Your task to perform on an android device: turn off smart reply in the gmail app Image 0: 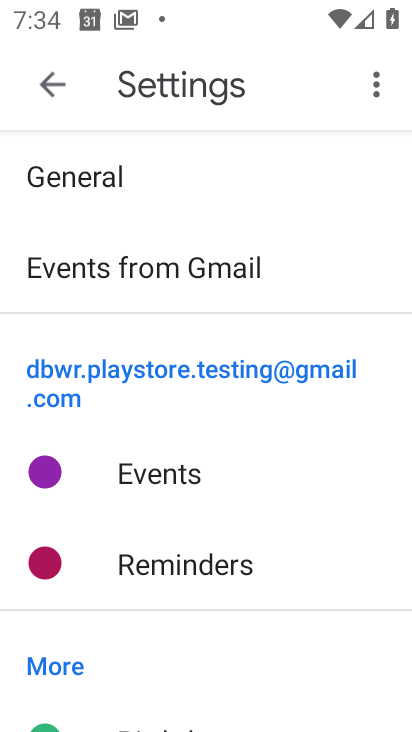
Step 0: press back button
Your task to perform on an android device: turn off smart reply in the gmail app Image 1: 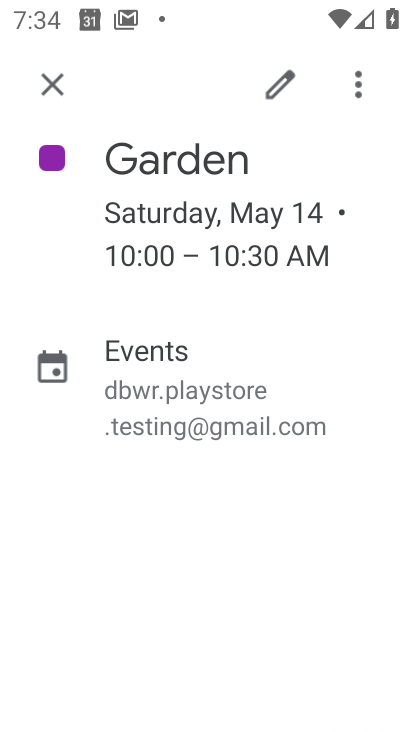
Step 1: press back button
Your task to perform on an android device: turn off smart reply in the gmail app Image 2: 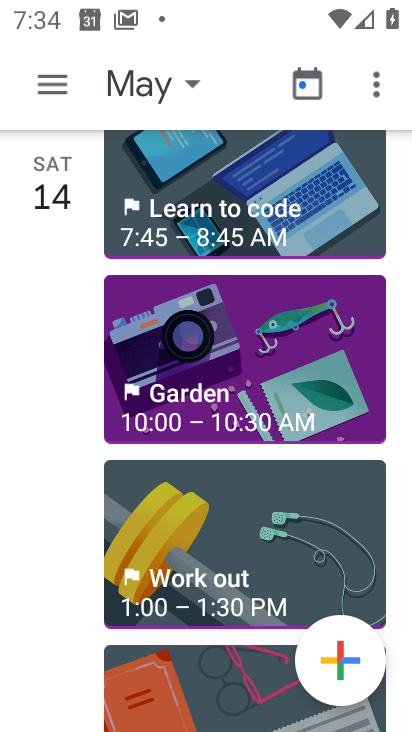
Step 2: press back button
Your task to perform on an android device: turn off smart reply in the gmail app Image 3: 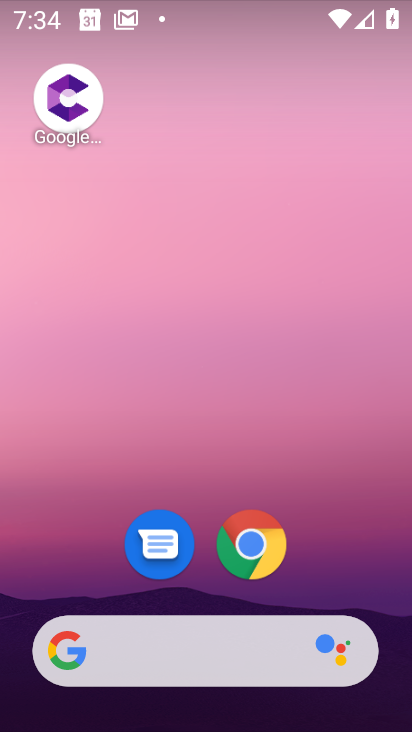
Step 3: drag from (350, 537) to (255, 58)
Your task to perform on an android device: turn off smart reply in the gmail app Image 4: 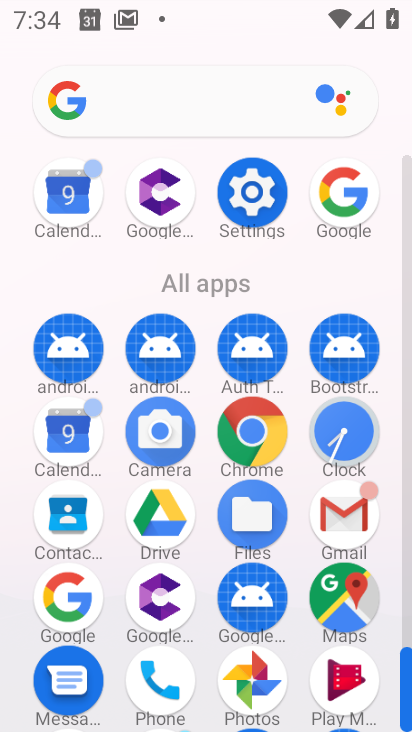
Step 4: click (343, 516)
Your task to perform on an android device: turn off smart reply in the gmail app Image 5: 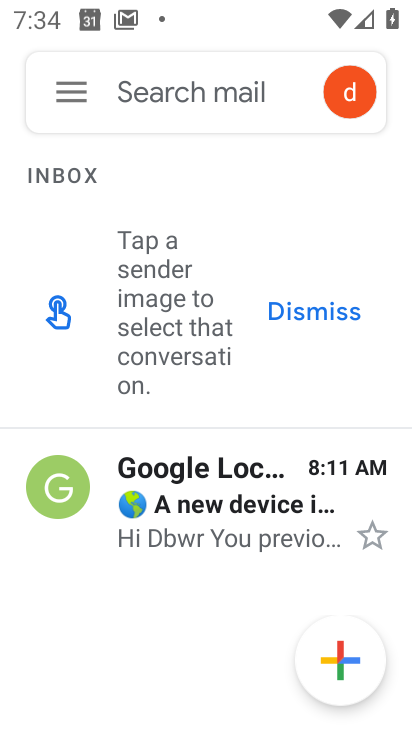
Step 5: click (65, 92)
Your task to perform on an android device: turn off smart reply in the gmail app Image 6: 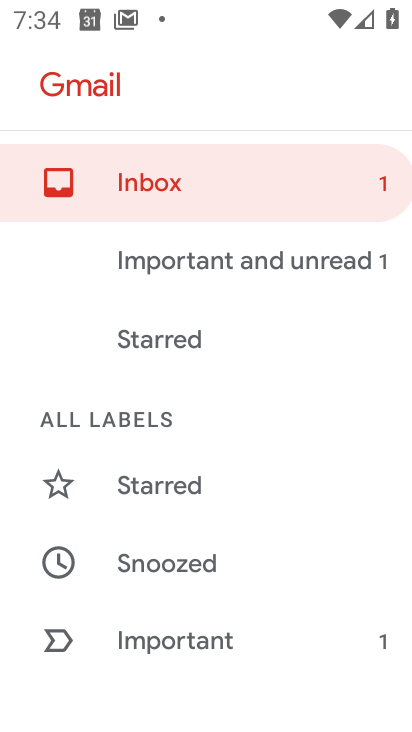
Step 6: drag from (210, 427) to (216, 336)
Your task to perform on an android device: turn off smart reply in the gmail app Image 7: 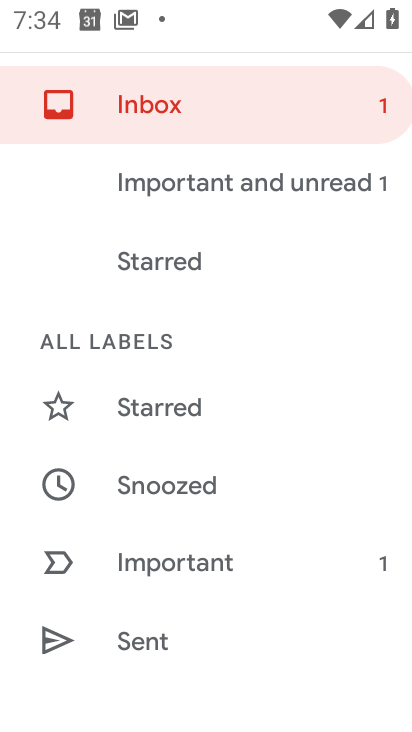
Step 7: drag from (296, 530) to (294, 397)
Your task to perform on an android device: turn off smart reply in the gmail app Image 8: 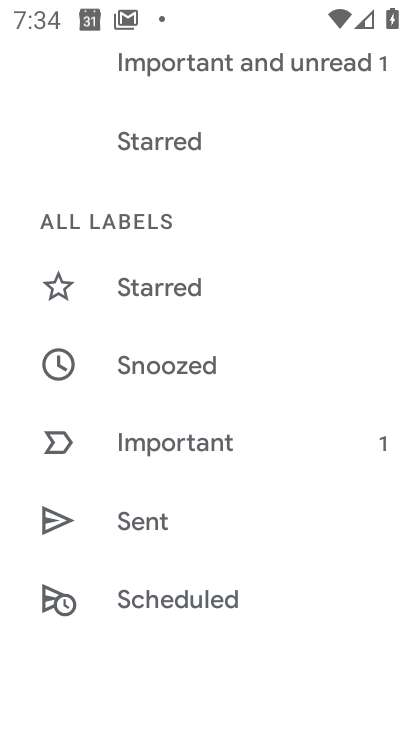
Step 8: drag from (237, 527) to (264, 422)
Your task to perform on an android device: turn off smart reply in the gmail app Image 9: 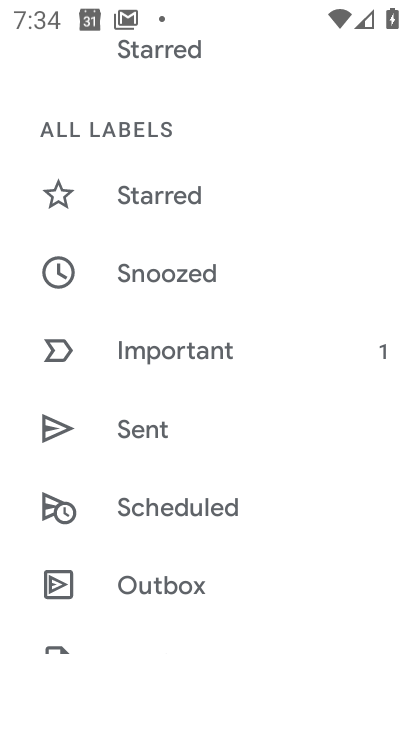
Step 9: drag from (235, 524) to (265, 416)
Your task to perform on an android device: turn off smart reply in the gmail app Image 10: 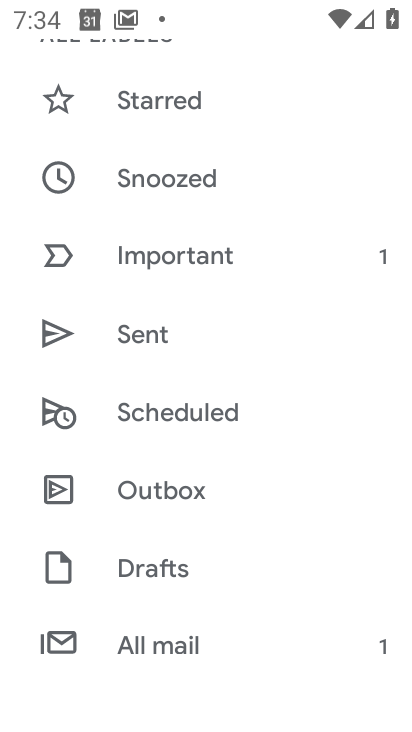
Step 10: drag from (208, 533) to (249, 407)
Your task to perform on an android device: turn off smart reply in the gmail app Image 11: 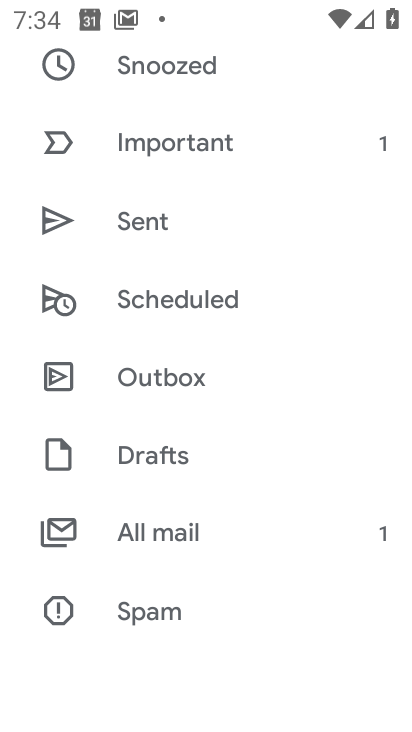
Step 11: drag from (196, 570) to (241, 438)
Your task to perform on an android device: turn off smart reply in the gmail app Image 12: 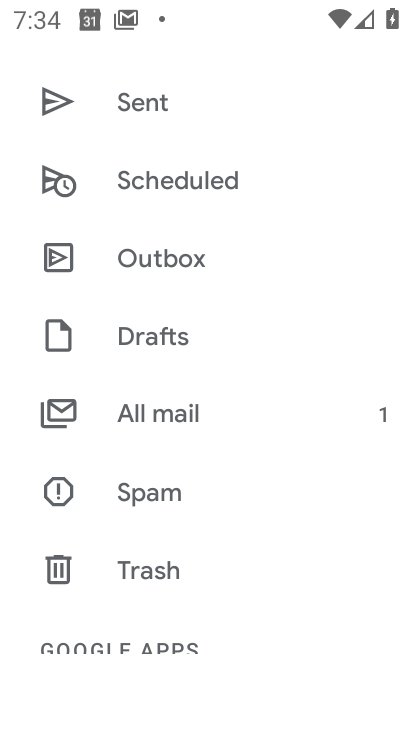
Step 12: drag from (188, 552) to (247, 443)
Your task to perform on an android device: turn off smart reply in the gmail app Image 13: 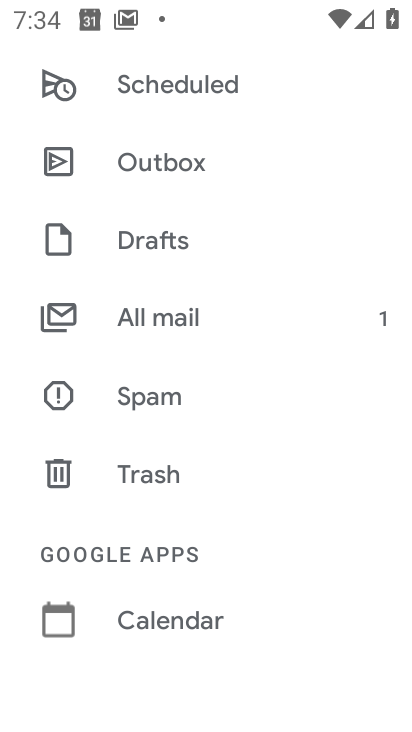
Step 13: drag from (214, 598) to (271, 504)
Your task to perform on an android device: turn off smart reply in the gmail app Image 14: 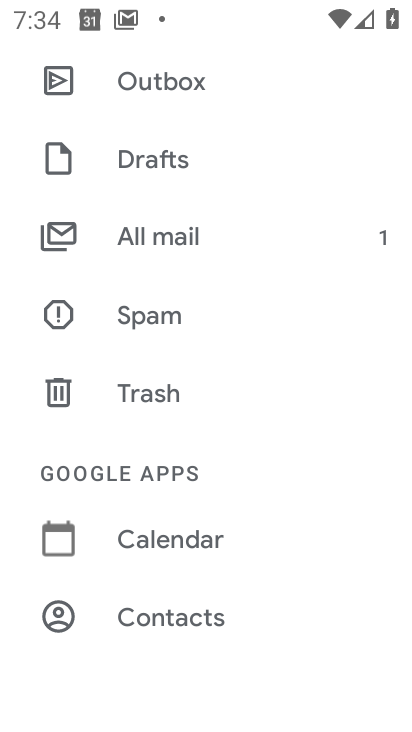
Step 14: drag from (226, 660) to (297, 528)
Your task to perform on an android device: turn off smart reply in the gmail app Image 15: 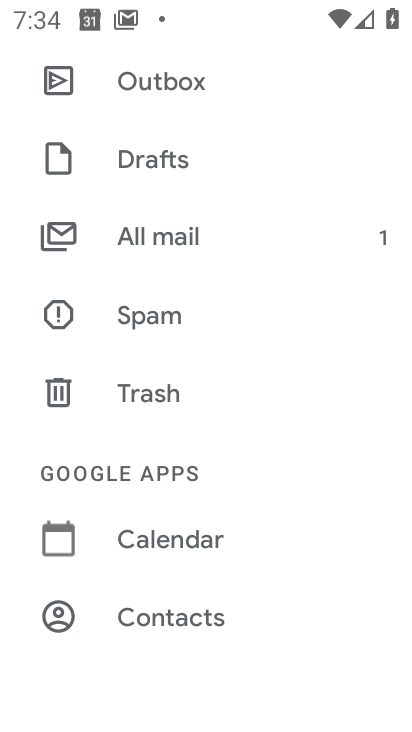
Step 15: drag from (284, 583) to (348, 482)
Your task to perform on an android device: turn off smart reply in the gmail app Image 16: 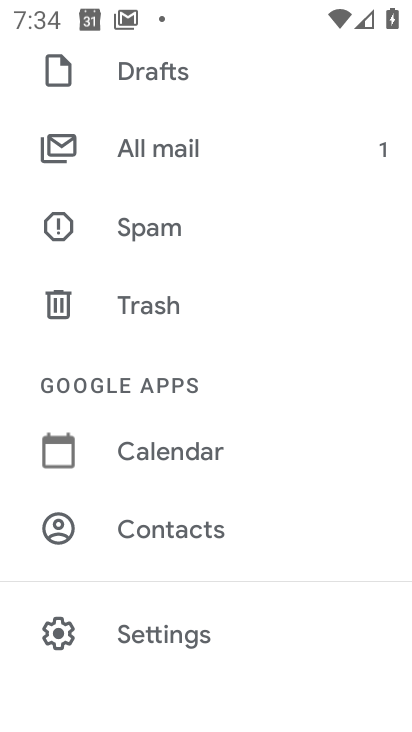
Step 16: drag from (278, 558) to (358, 423)
Your task to perform on an android device: turn off smart reply in the gmail app Image 17: 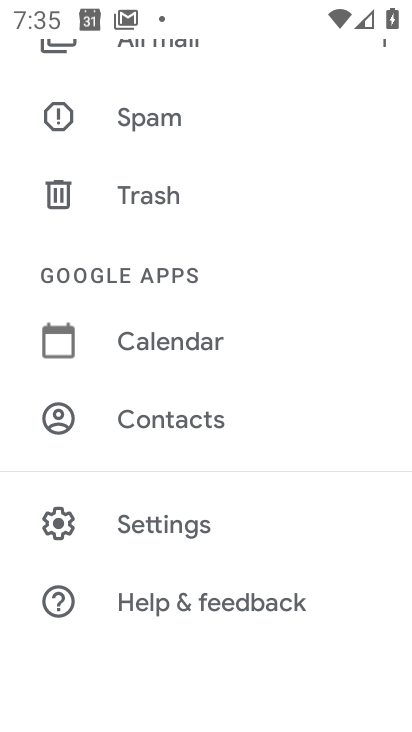
Step 17: click (197, 533)
Your task to perform on an android device: turn off smart reply in the gmail app Image 18: 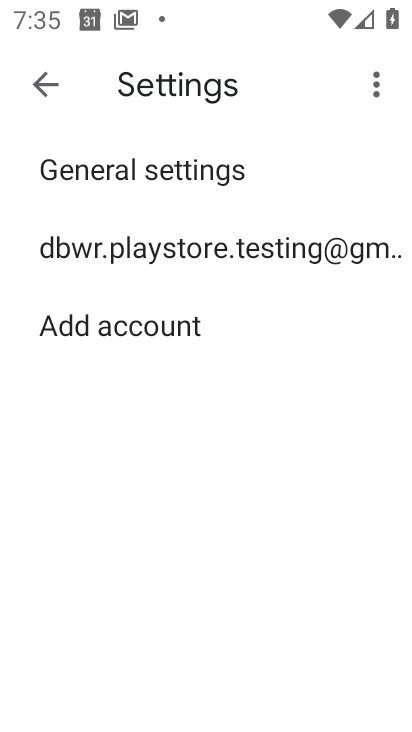
Step 18: click (184, 251)
Your task to perform on an android device: turn off smart reply in the gmail app Image 19: 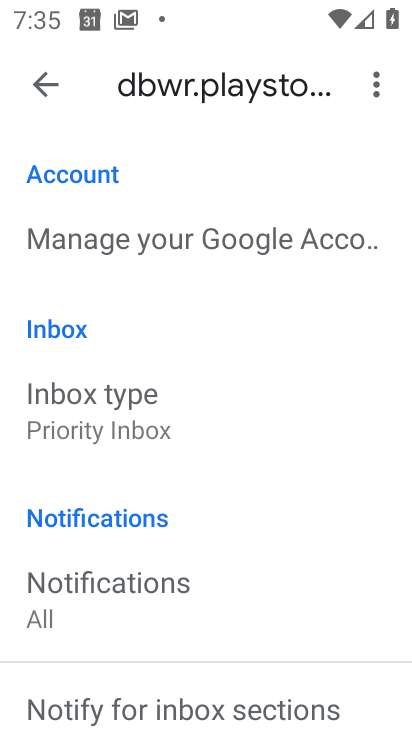
Step 19: drag from (236, 540) to (264, 431)
Your task to perform on an android device: turn off smart reply in the gmail app Image 20: 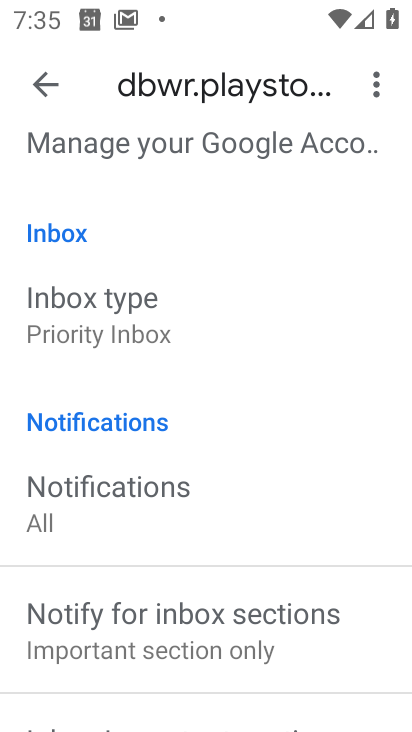
Step 20: drag from (253, 546) to (312, 331)
Your task to perform on an android device: turn off smart reply in the gmail app Image 21: 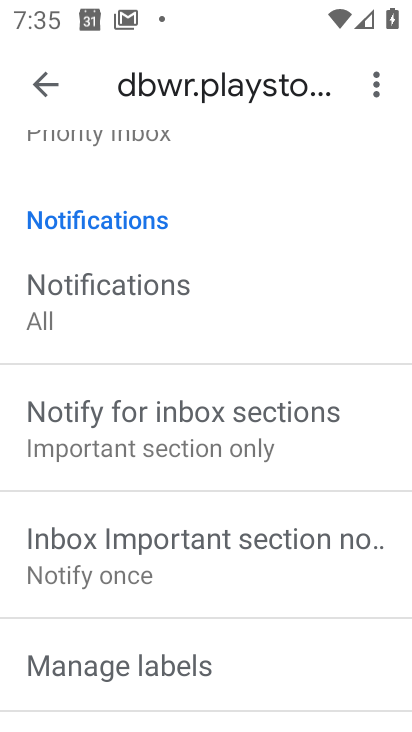
Step 21: drag from (225, 334) to (252, 155)
Your task to perform on an android device: turn off smart reply in the gmail app Image 22: 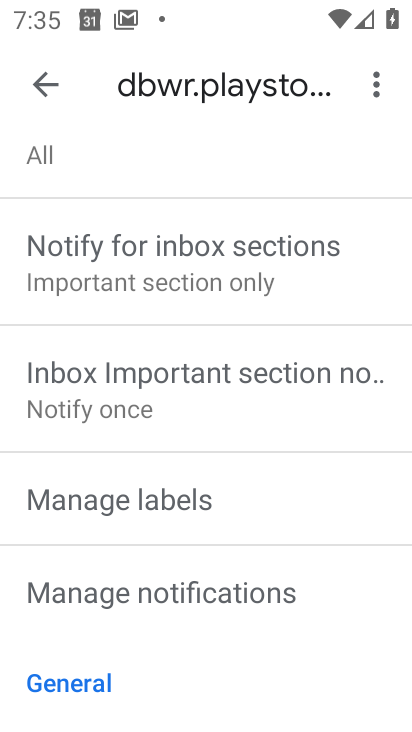
Step 22: drag from (179, 637) to (228, 403)
Your task to perform on an android device: turn off smart reply in the gmail app Image 23: 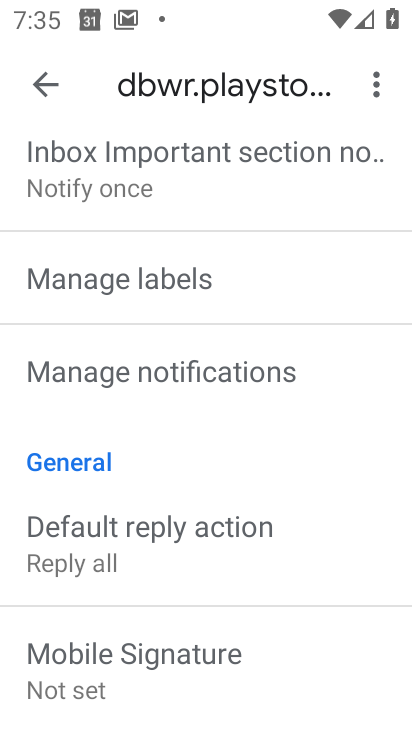
Step 23: drag from (241, 585) to (301, 435)
Your task to perform on an android device: turn off smart reply in the gmail app Image 24: 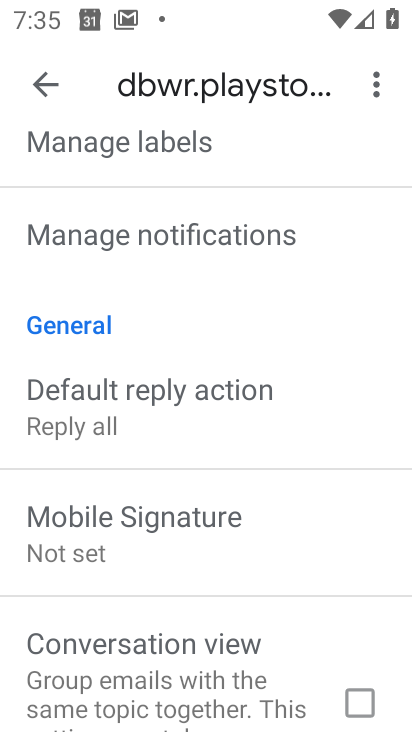
Step 24: drag from (241, 557) to (318, 416)
Your task to perform on an android device: turn off smart reply in the gmail app Image 25: 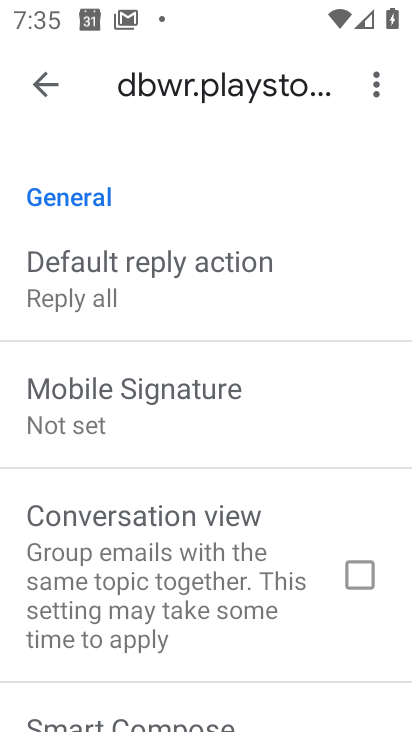
Step 25: drag from (225, 657) to (304, 452)
Your task to perform on an android device: turn off smart reply in the gmail app Image 26: 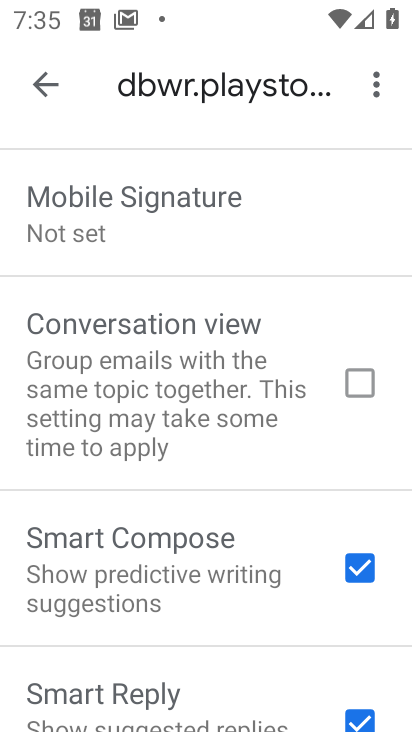
Step 26: click (362, 573)
Your task to perform on an android device: turn off smart reply in the gmail app Image 27: 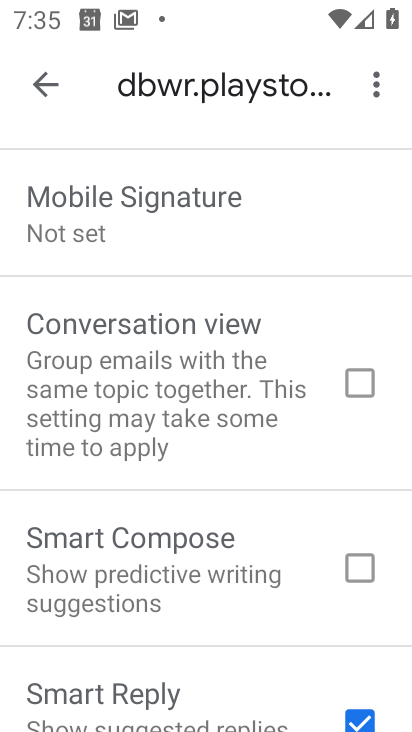
Step 27: task complete